Your task to perform on an android device: turn on notifications settings in the gmail app Image 0: 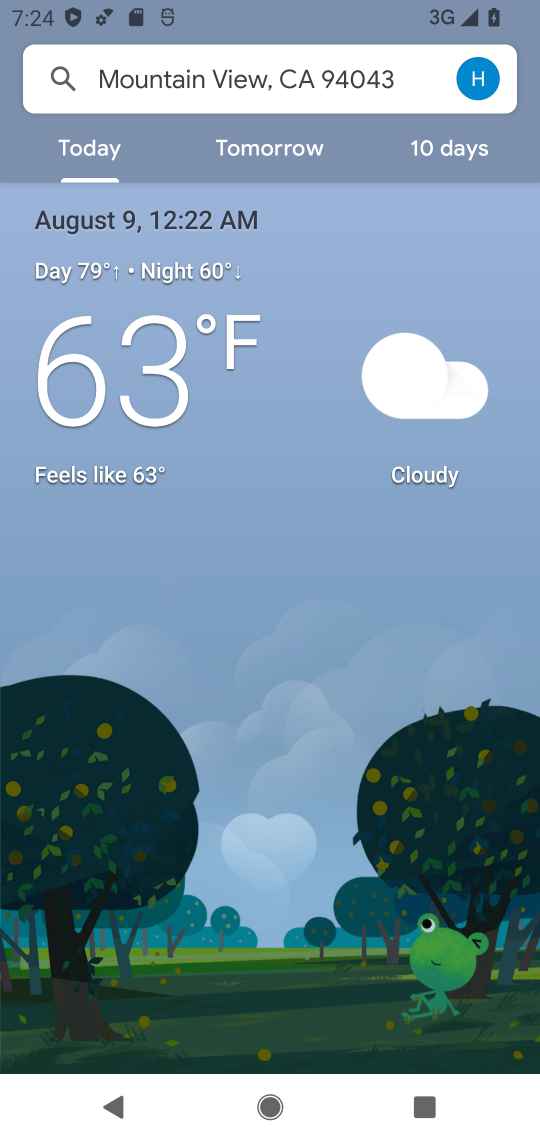
Step 0: press home button
Your task to perform on an android device: turn on notifications settings in the gmail app Image 1: 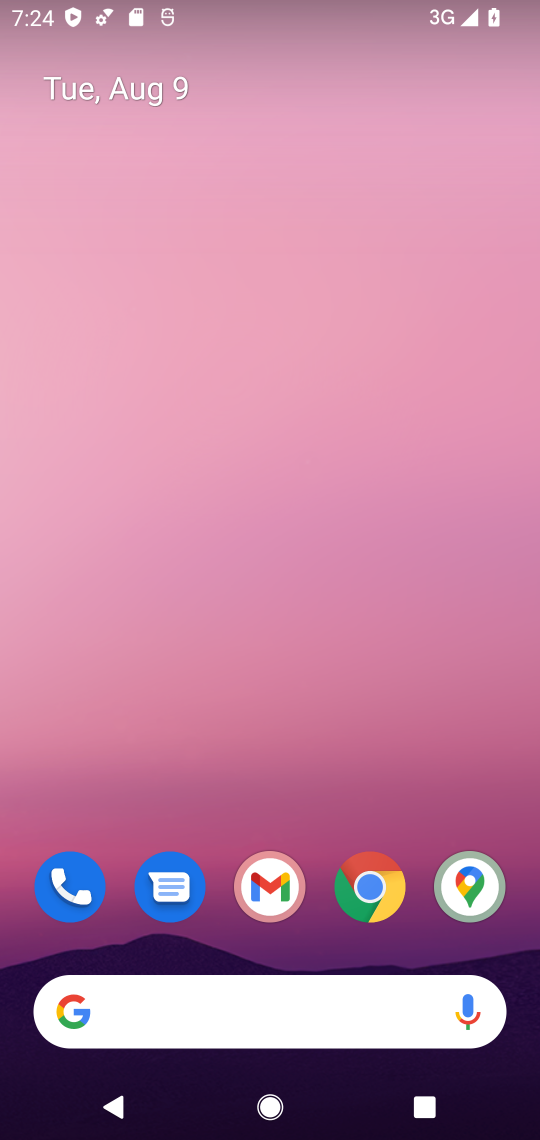
Step 1: click (277, 883)
Your task to perform on an android device: turn on notifications settings in the gmail app Image 2: 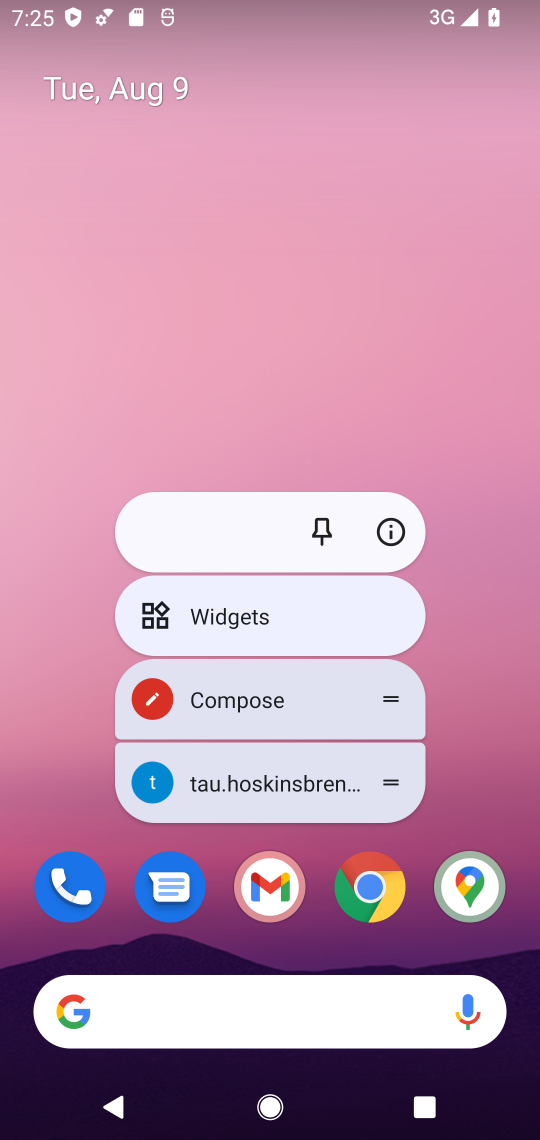
Step 2: click (277, 884)
Your task to perform on an android device: turn on notifications settings in the gmail app Image 3: 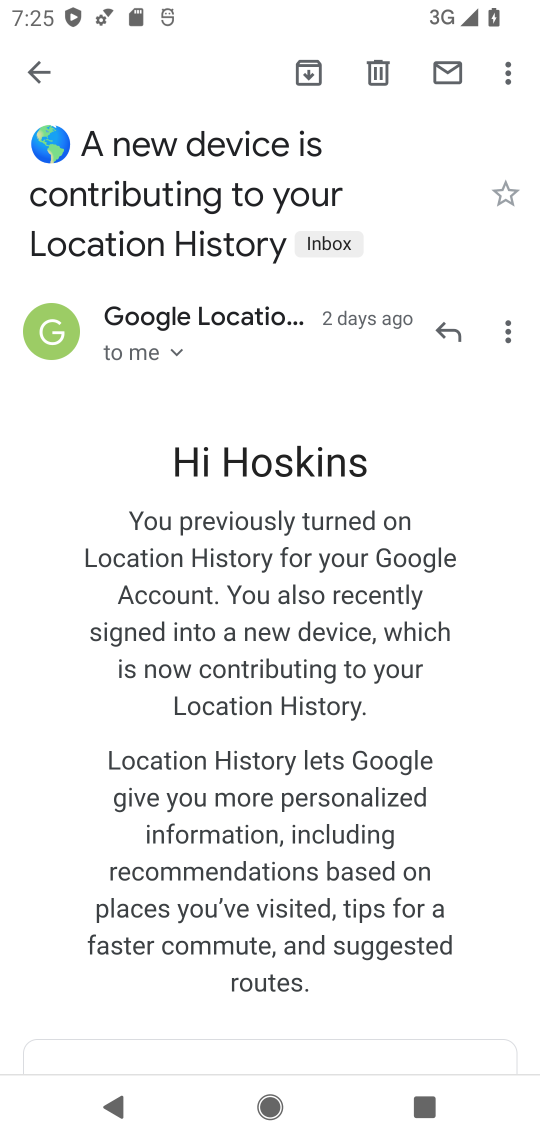
Step 3: click (39, 65)
Your task to perform on an android device: turn on notifications settings in the gmail app Image 4: 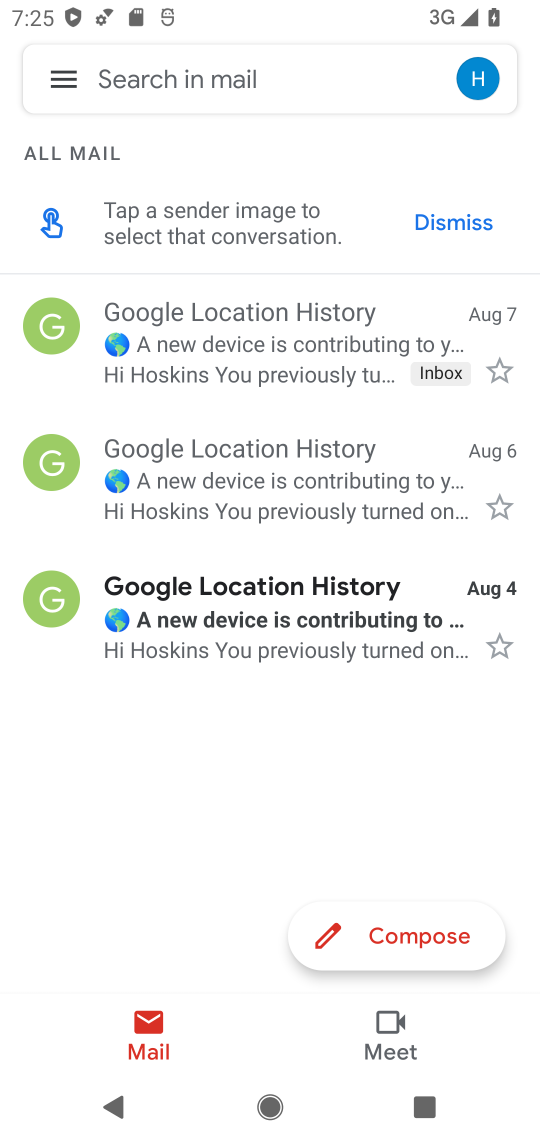
Step 4: click (56, 75)
Your task to perform on an android device: turn on notifications settings in the gmail app Image 5: 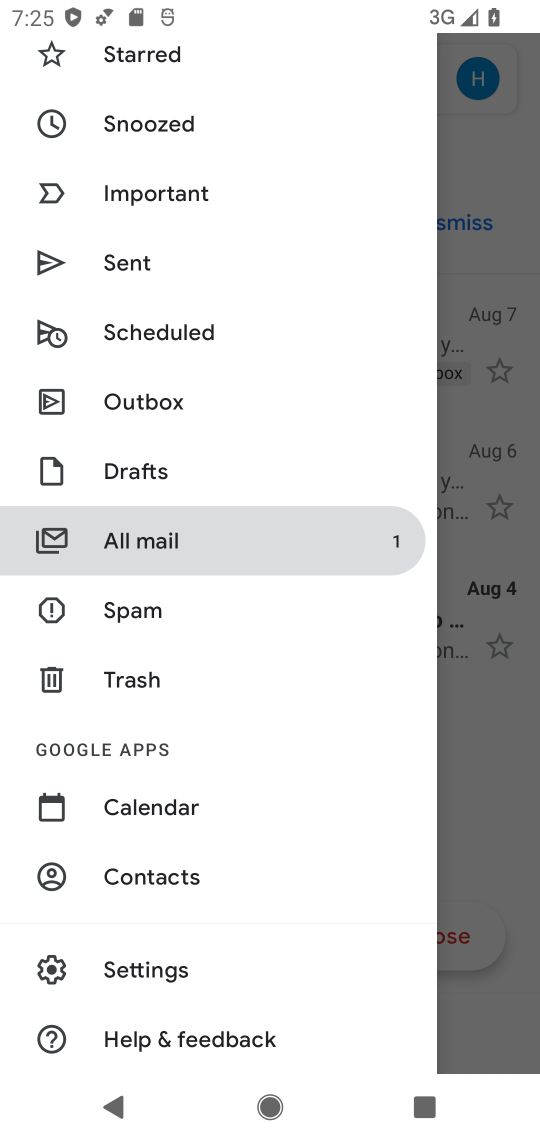
Step 5: click (180, 966)
Your task to perform on an android device: turn on notifications settings in the gmail app Image 6: 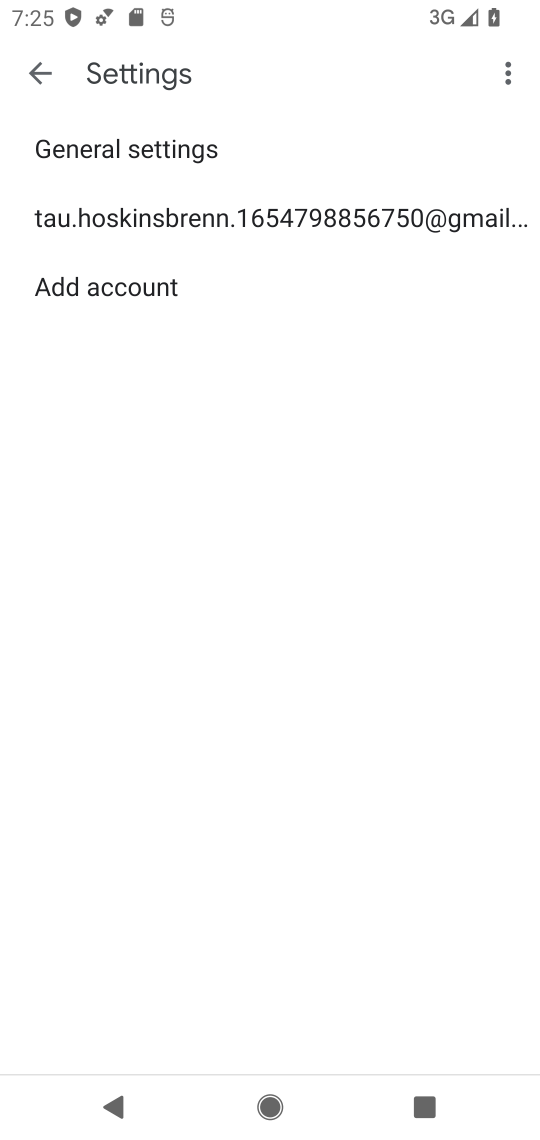
Step 6: click (298, 209)
Your task to perform on an android device: turn on notifications settings in the gmail app Image 7: 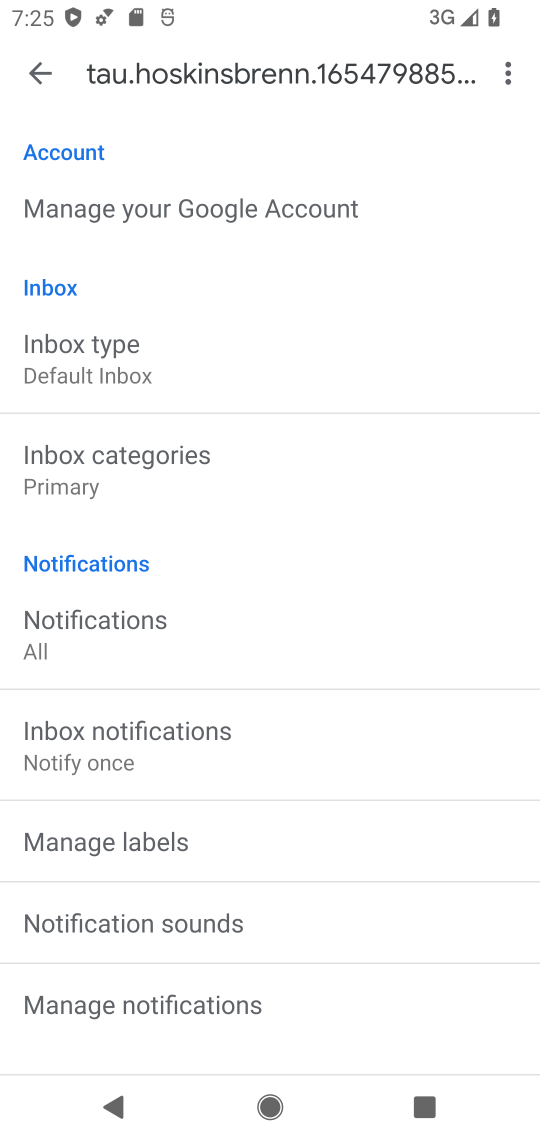
Step 7: task complete